Your task to perform on an android device: toggle airplane mode Image 0: 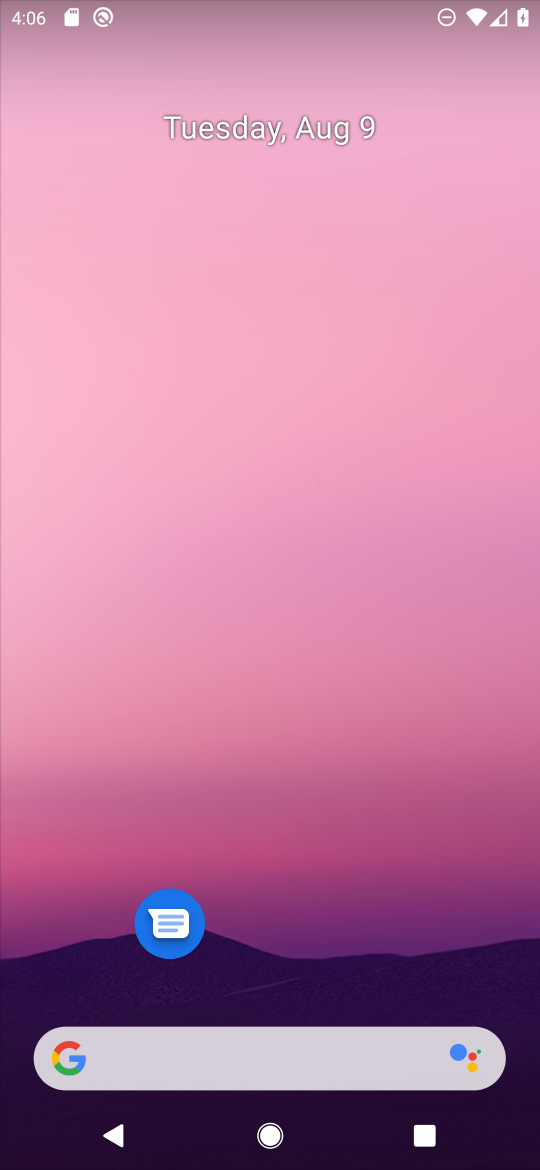
Step 0: drag from (486, 16) to (381, 782)
Your task to perform on an android device: toggle airplane mode Image 1: 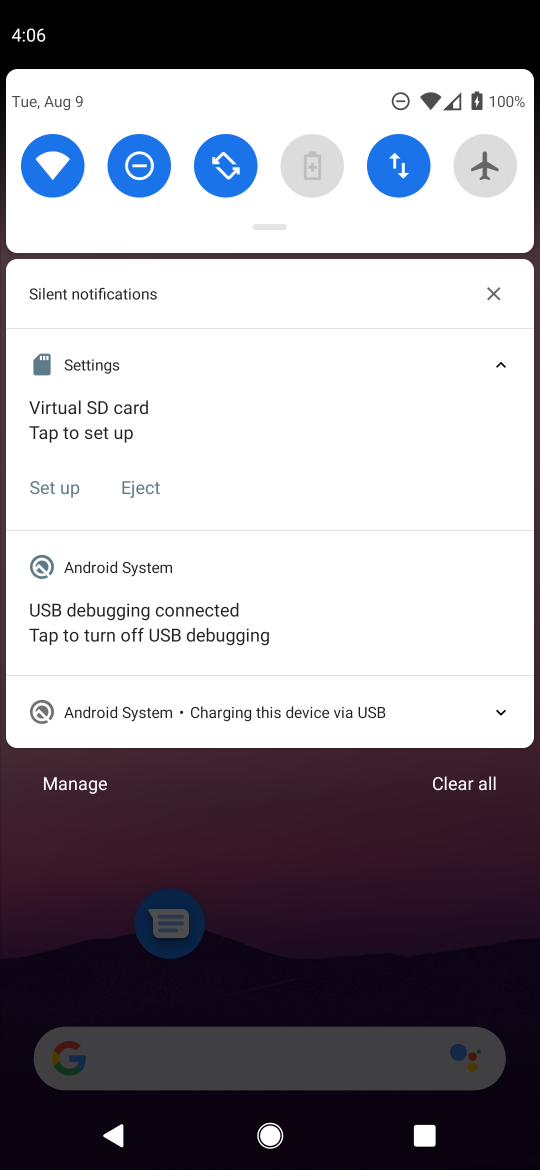
Step 1: click (482, 169)
Your task to perform on an android device: toggle airplane mode Image 2: 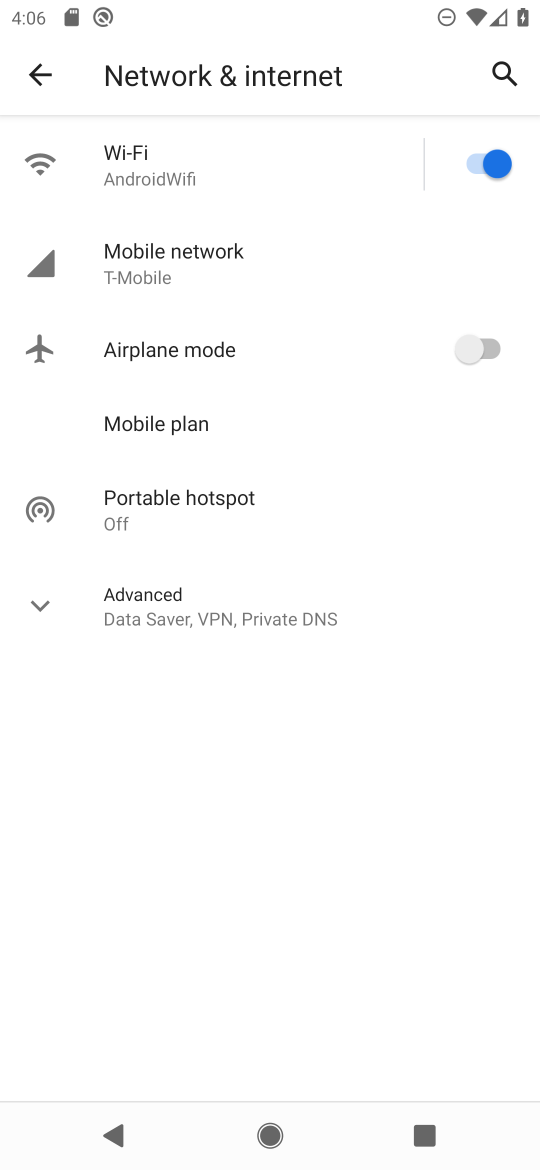
Step 2: click (472, 345)
Your task to perform on an android device: toggle airplane mode Image 3: 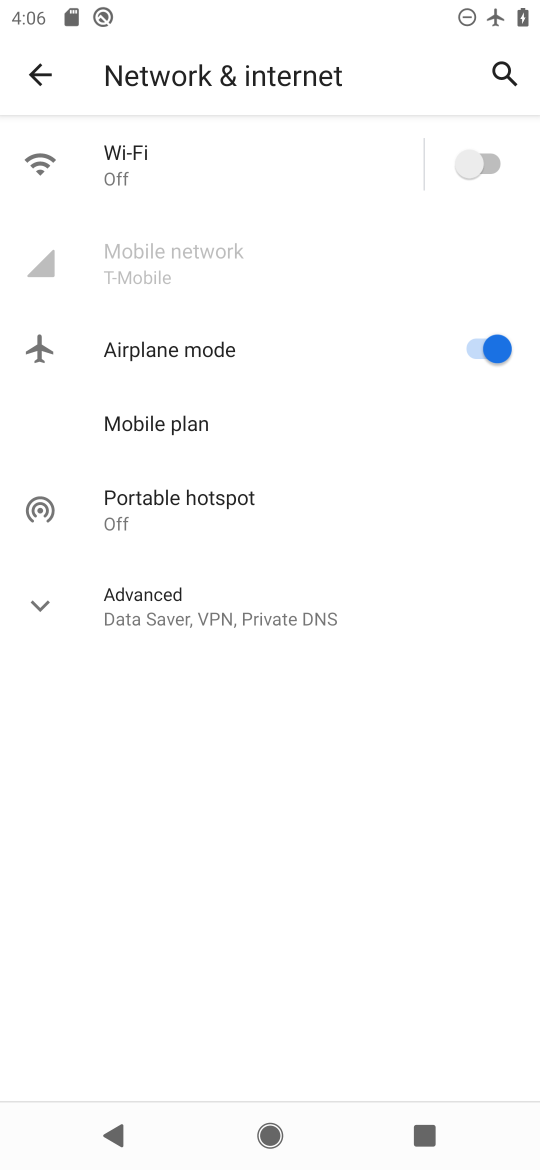
Step 3: task complete